Your task to perform on an android device: turn on wifi Image 0: 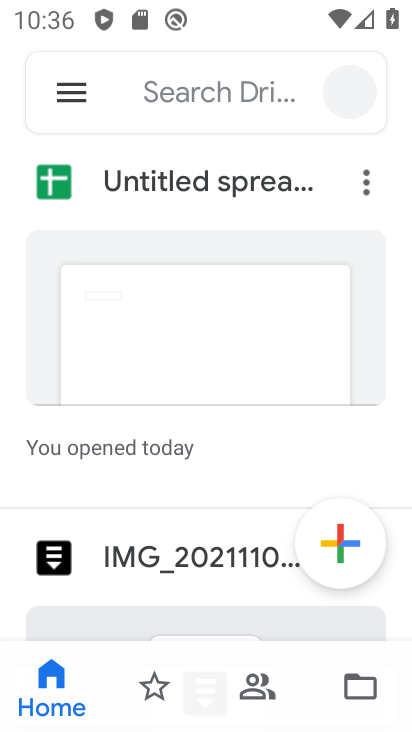
Step 0: press home button
Your task to perform on an android device: turn on wifi Image 1: 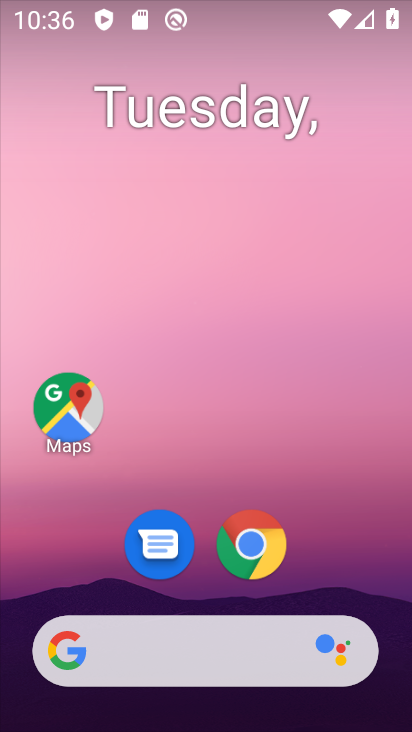
Step 1: task complete